Your task to perform on an android device: Where can I buy a nice beach umbrella? Image 0: 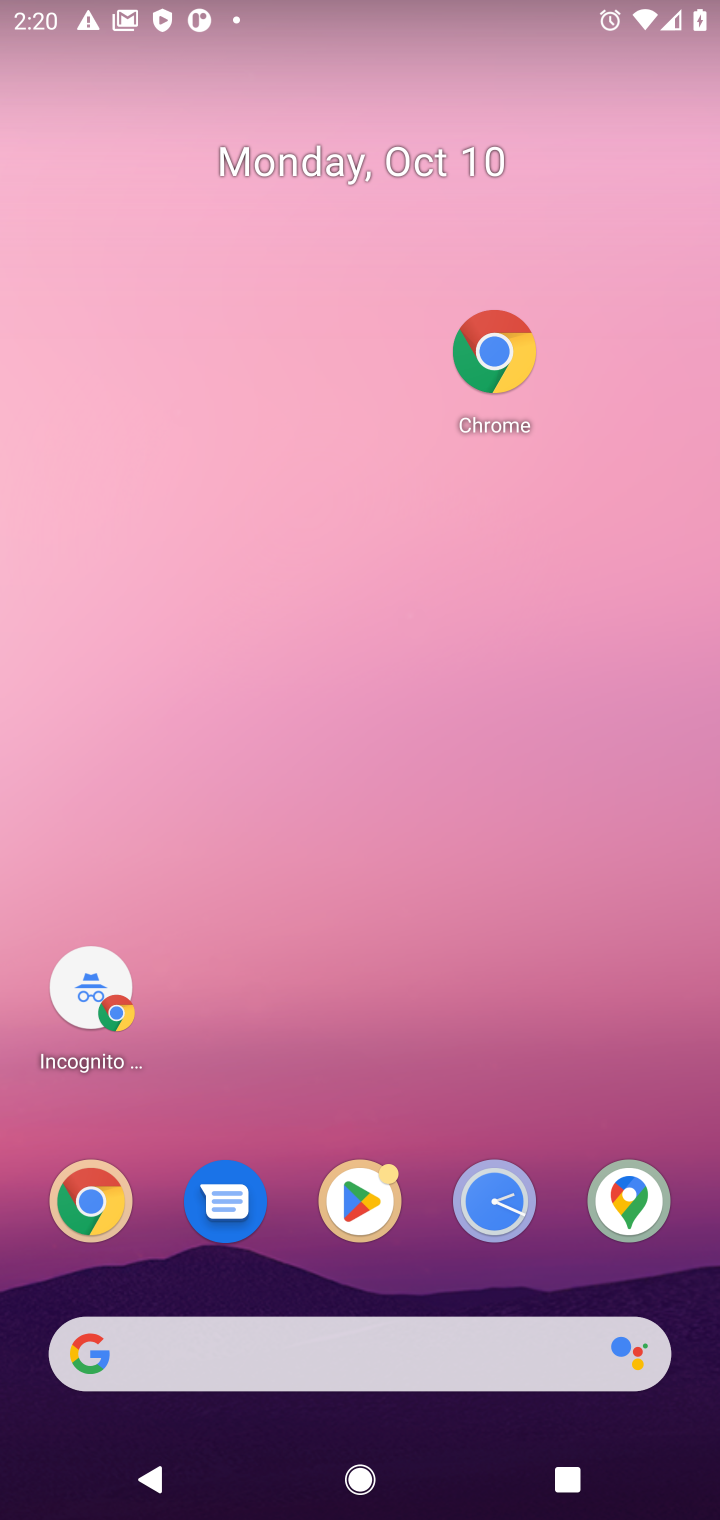
Step 0: click (498, 360)
Your task to perform on an android device: Where can I buy a nice beach umbrella? Image 1: 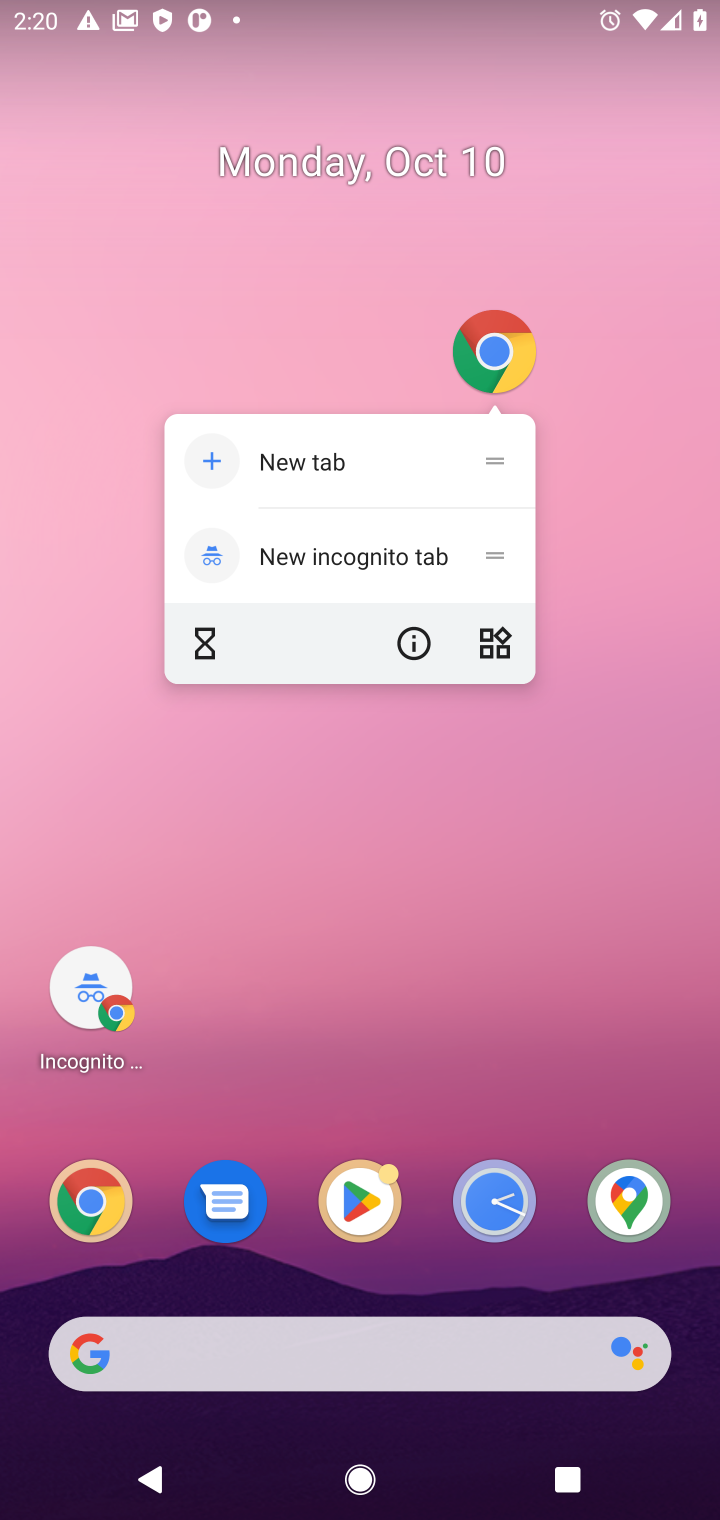
Step 1: click (498, 360)
Your task to perform on an android device: Where can I buy a nice beach umbrella? Image 2: 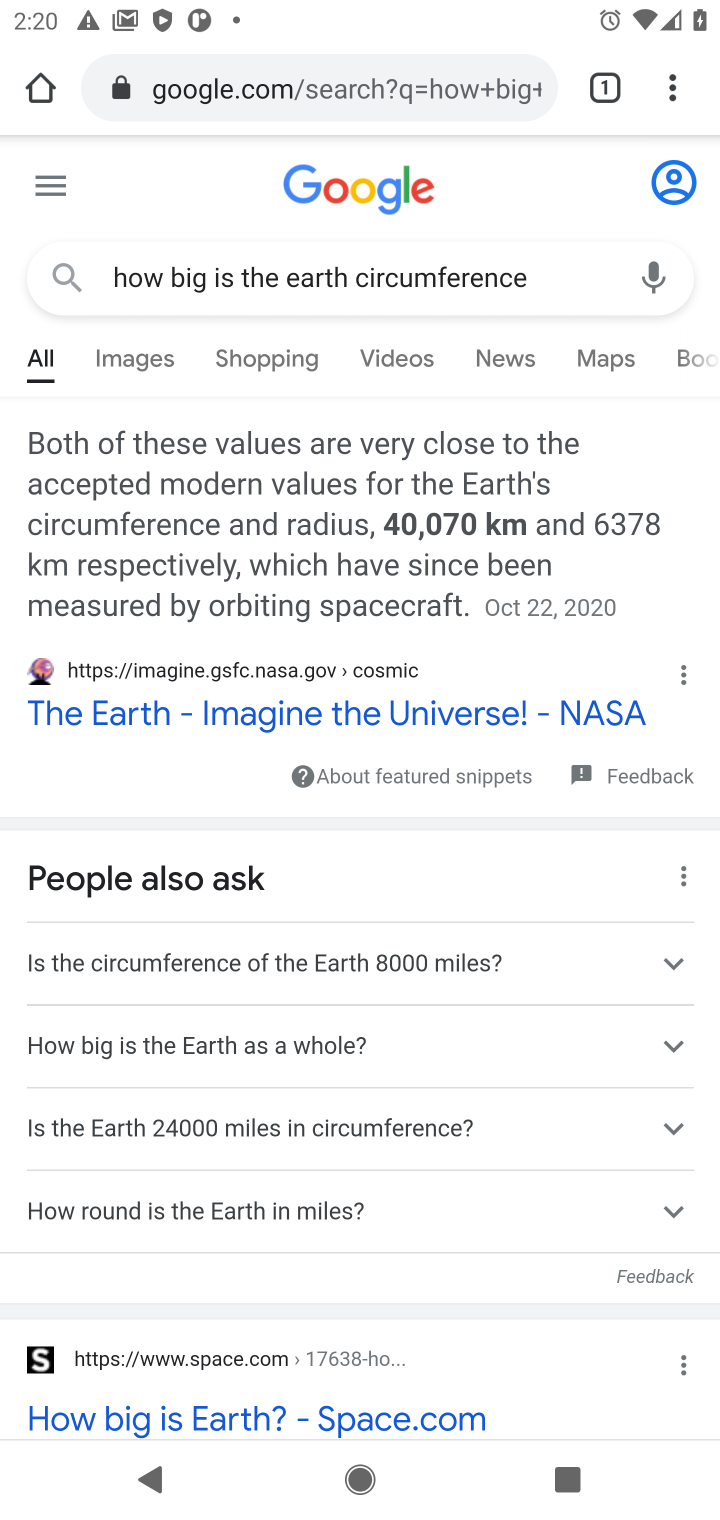
Step 2: click (443, 269)
Your task to perform on an android device: Where can I buy a nice beach umbrella? Image 3: 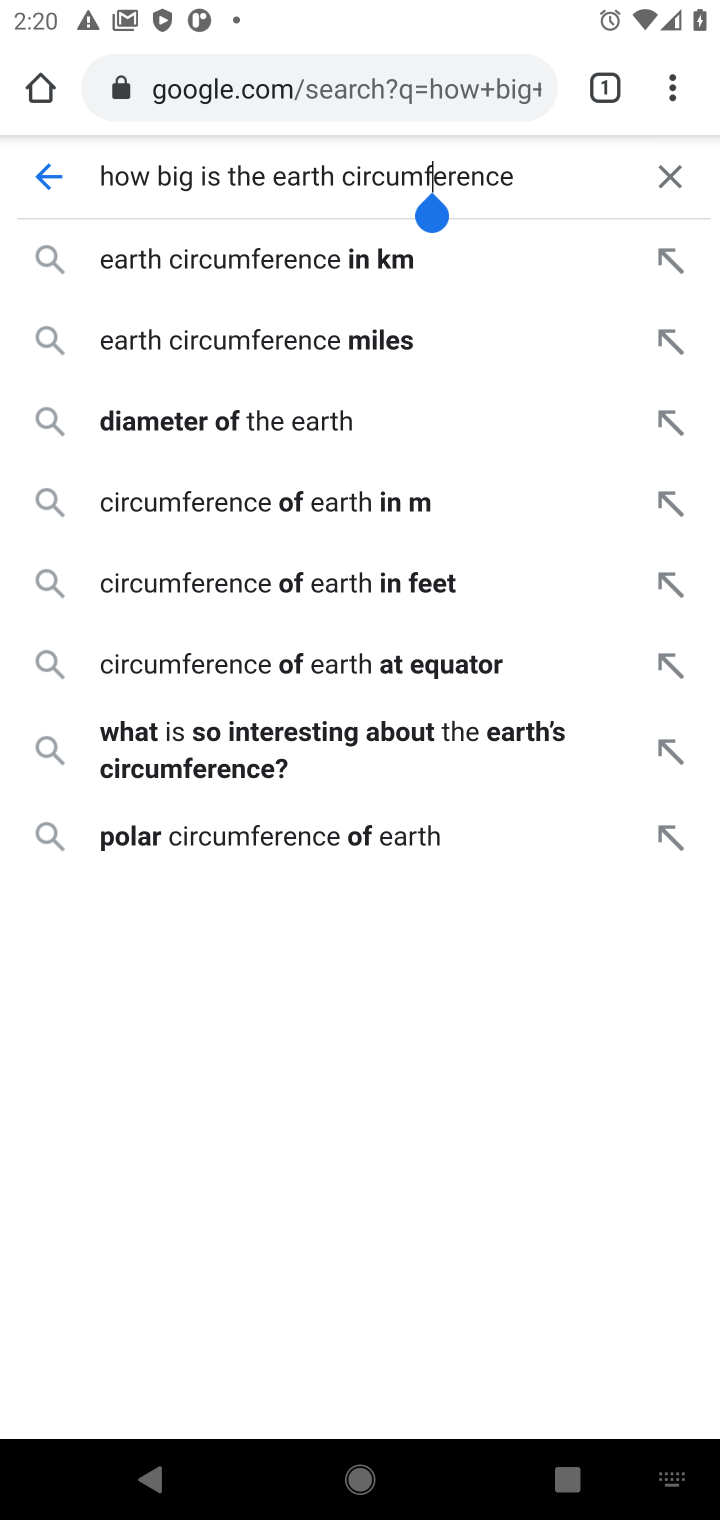
Step 3: click (667, 173)
Your task to perform on an android device: Where can I buy a nice beach umbrella? Image 4: 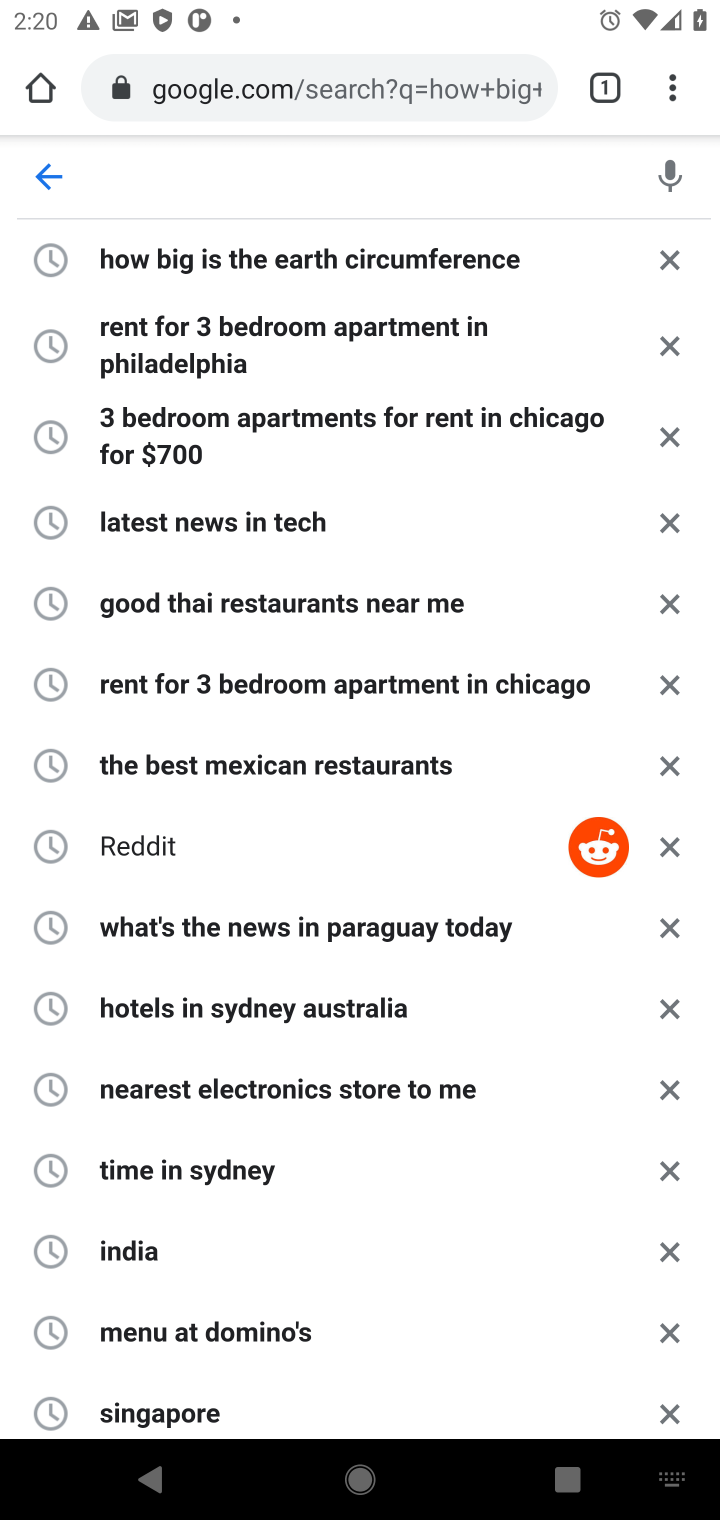
Step 4: type "Where can I buy a nice beach umbrella?"
Your task to perform on an android device: Where can I buy a nice beach umbrella? Image 5: 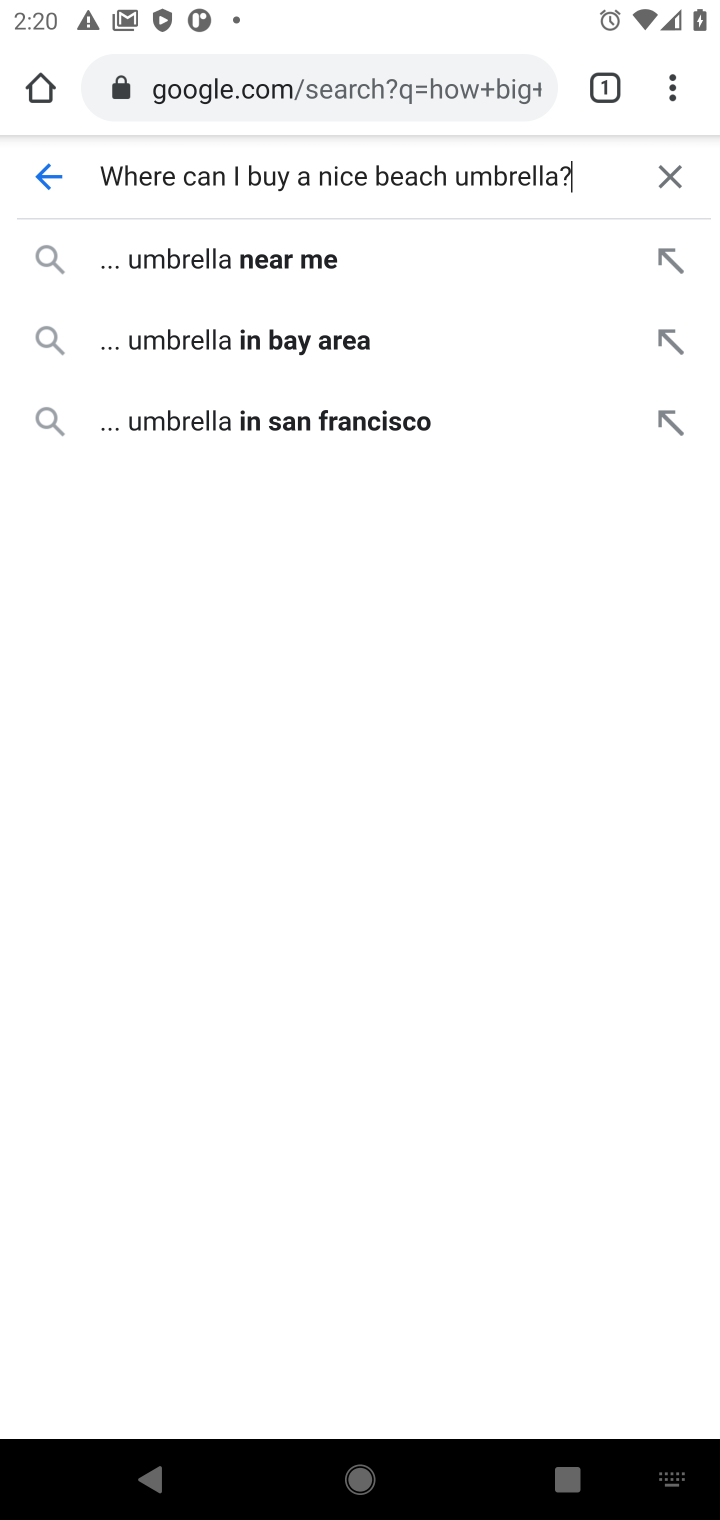
Step 5: click (228, 263)
Your task to perform on an android device: Where can I buy a nice beach umbrella? Image 6: 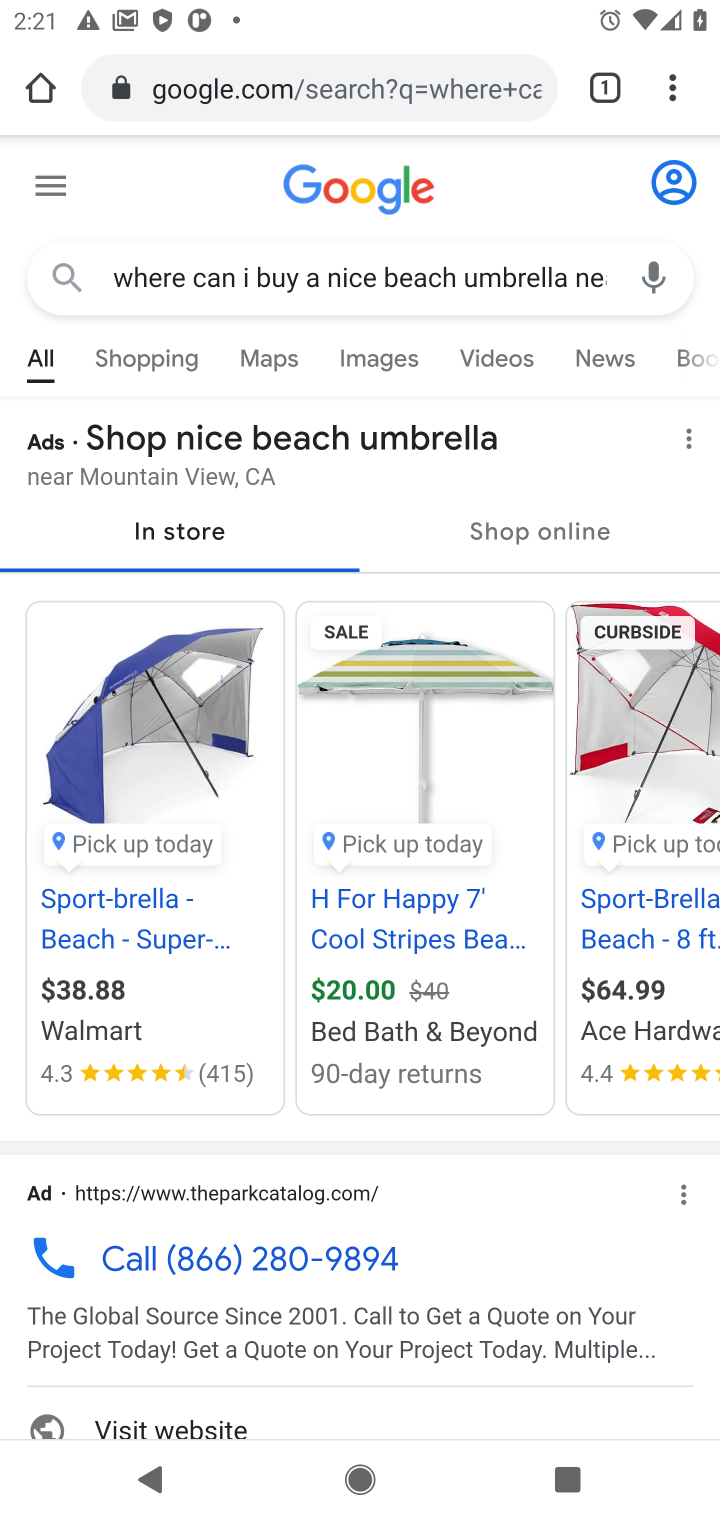
Step 6: drag from (316, 1245) to (292, 676)
Your task to perform on an android device: Where can I buy a nice beach umbrella? Image 7: 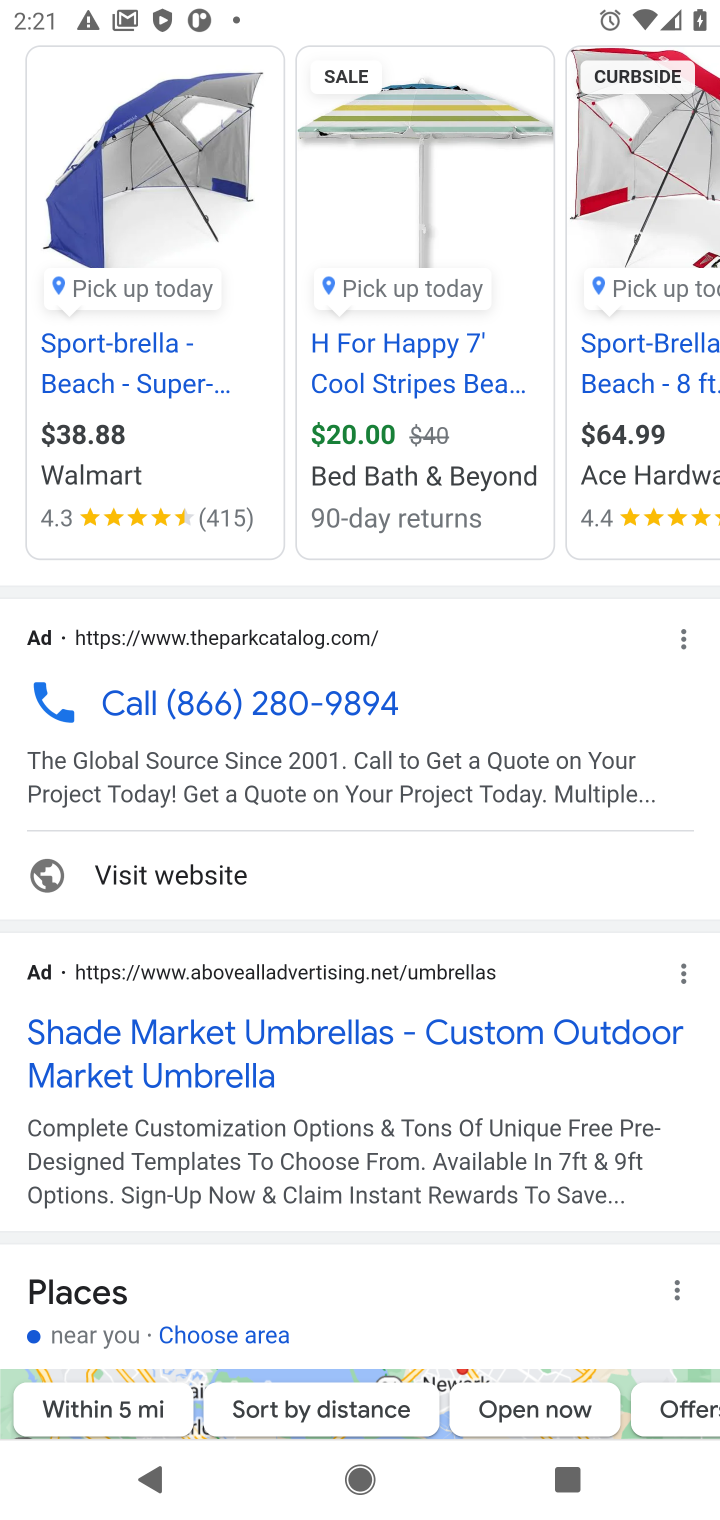
Step 7: drag from (233, 1125) to (225, 470)
Your task to perform on an android device: Where can I buy a nice beach umbrella? Image 8: 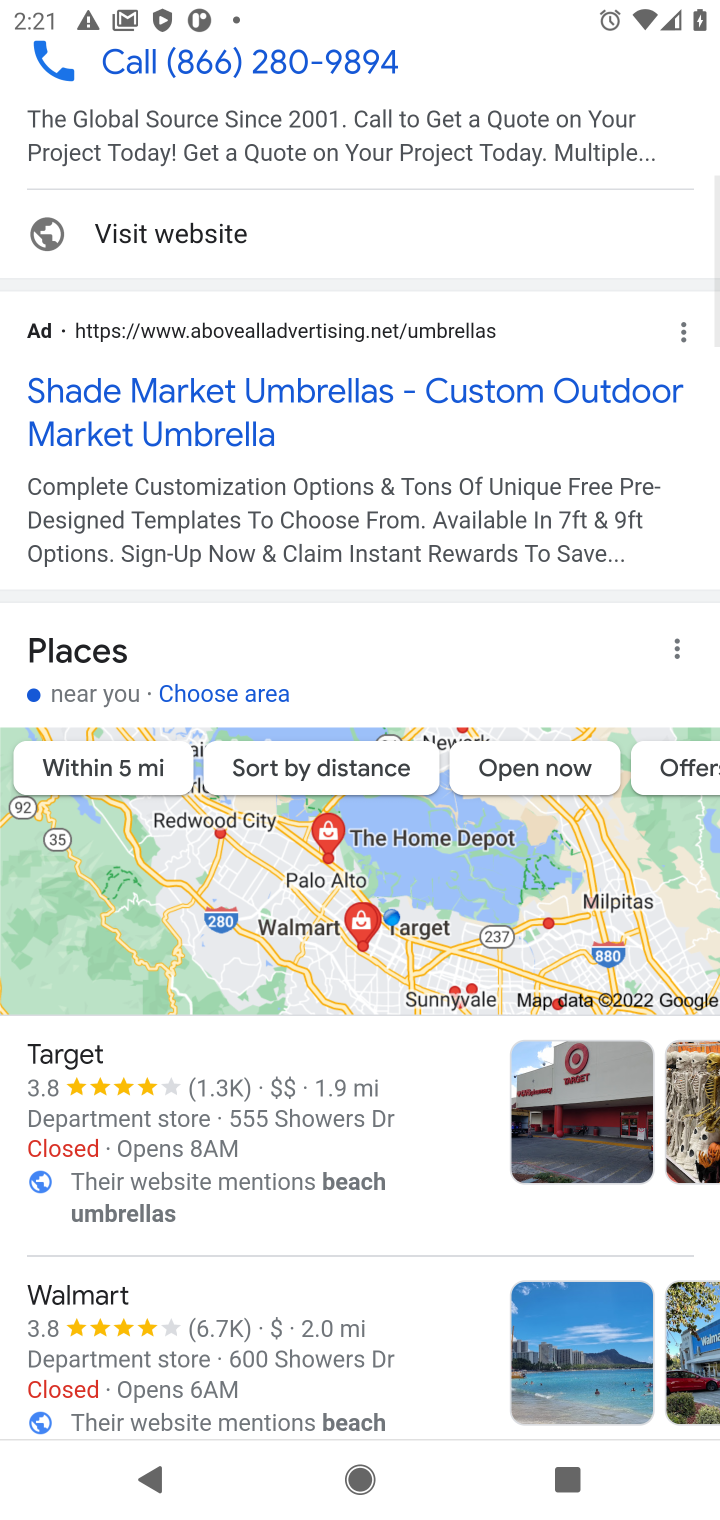
Step 8: drag from (271, 1153) to (245, 570)
Your task to perform on an android device: Where can I buy a nice beach umbrella? Image 9: 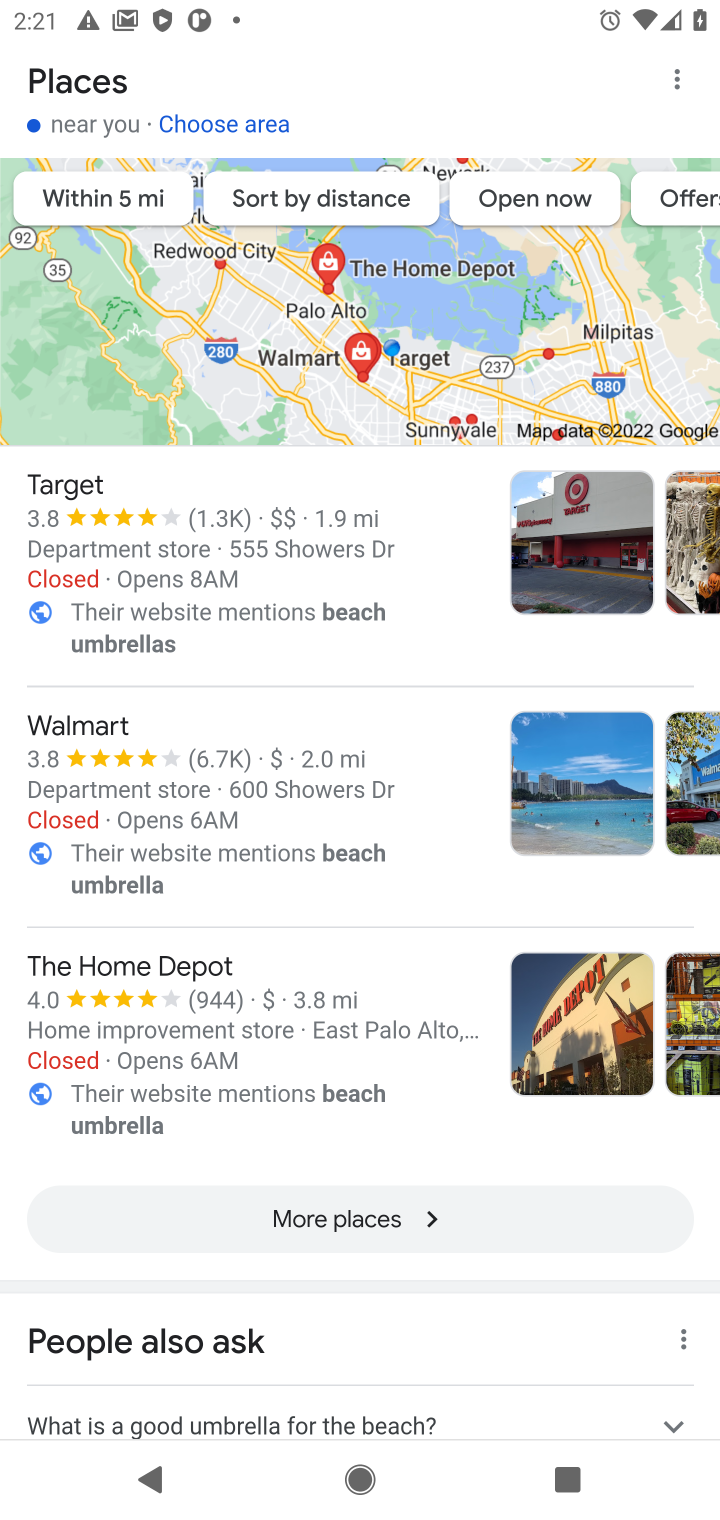
Step 9: click (161, 780)
Your task to perform on an android device: Where can I buy a nice beach umbrella? Image 10: 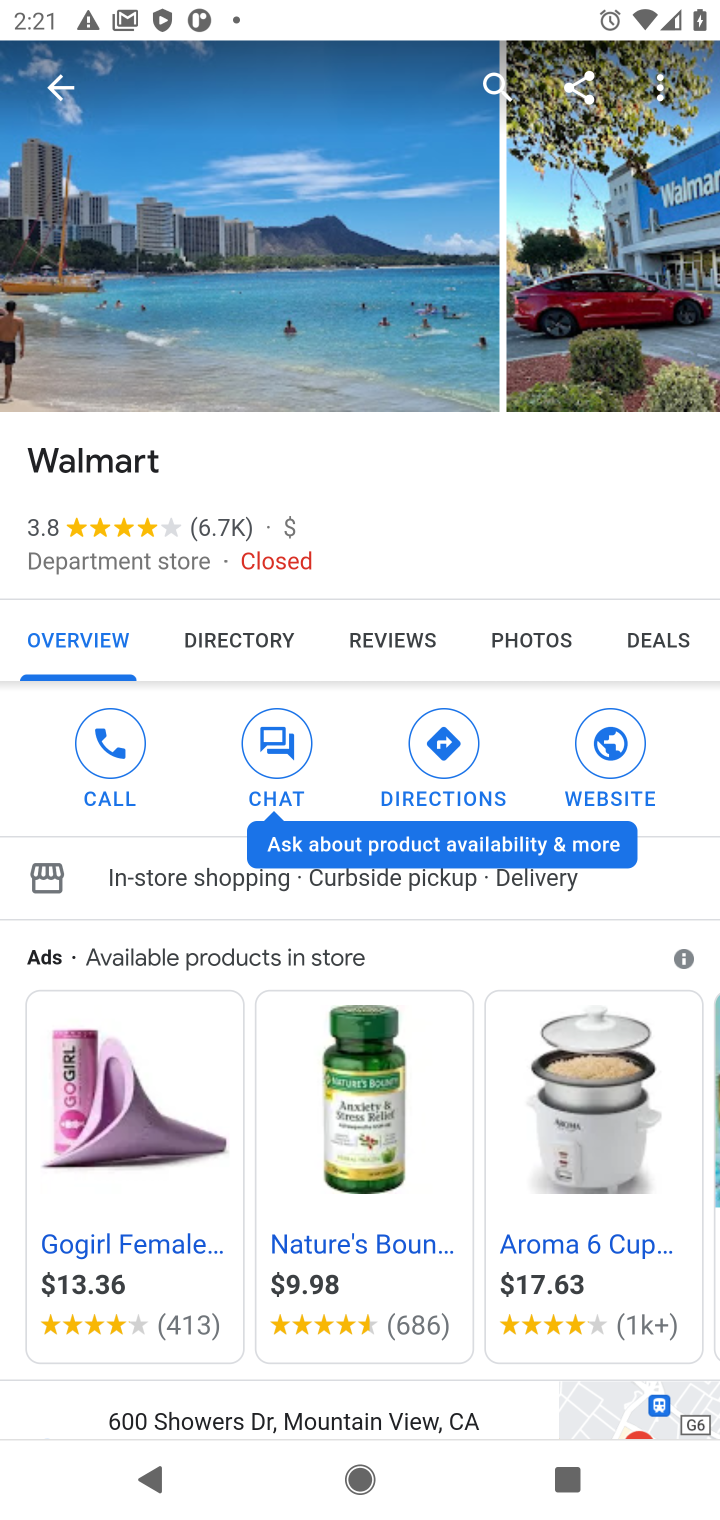
Step 10: drag from (444, 742) to (403, 378)
Your task to perform on an android device: Where can I buy a nice beach umbrella? Image 11: 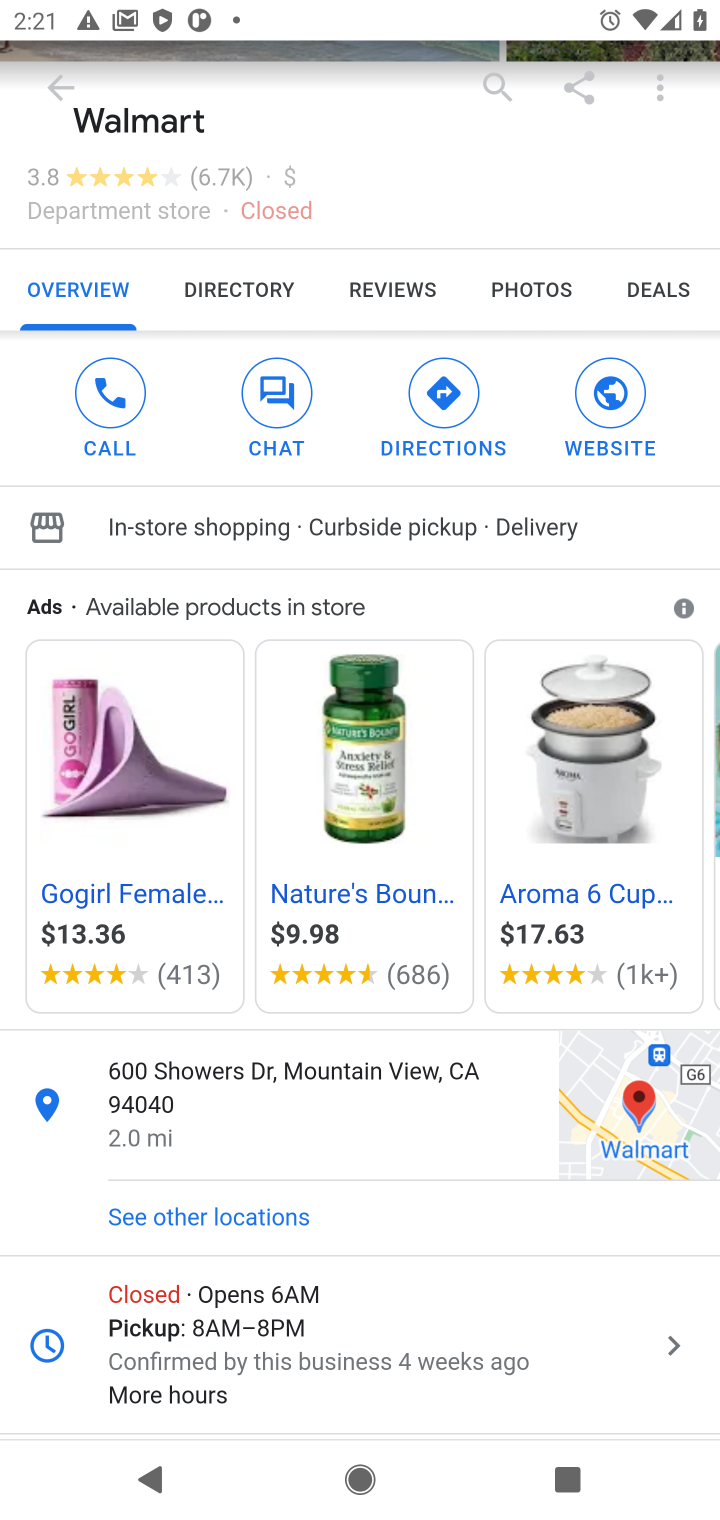
Step 11: drag from (382, 955) to (360, 427)
Your task to perform on an android device: Where can I buy a nice beach umbrella? Image 12: 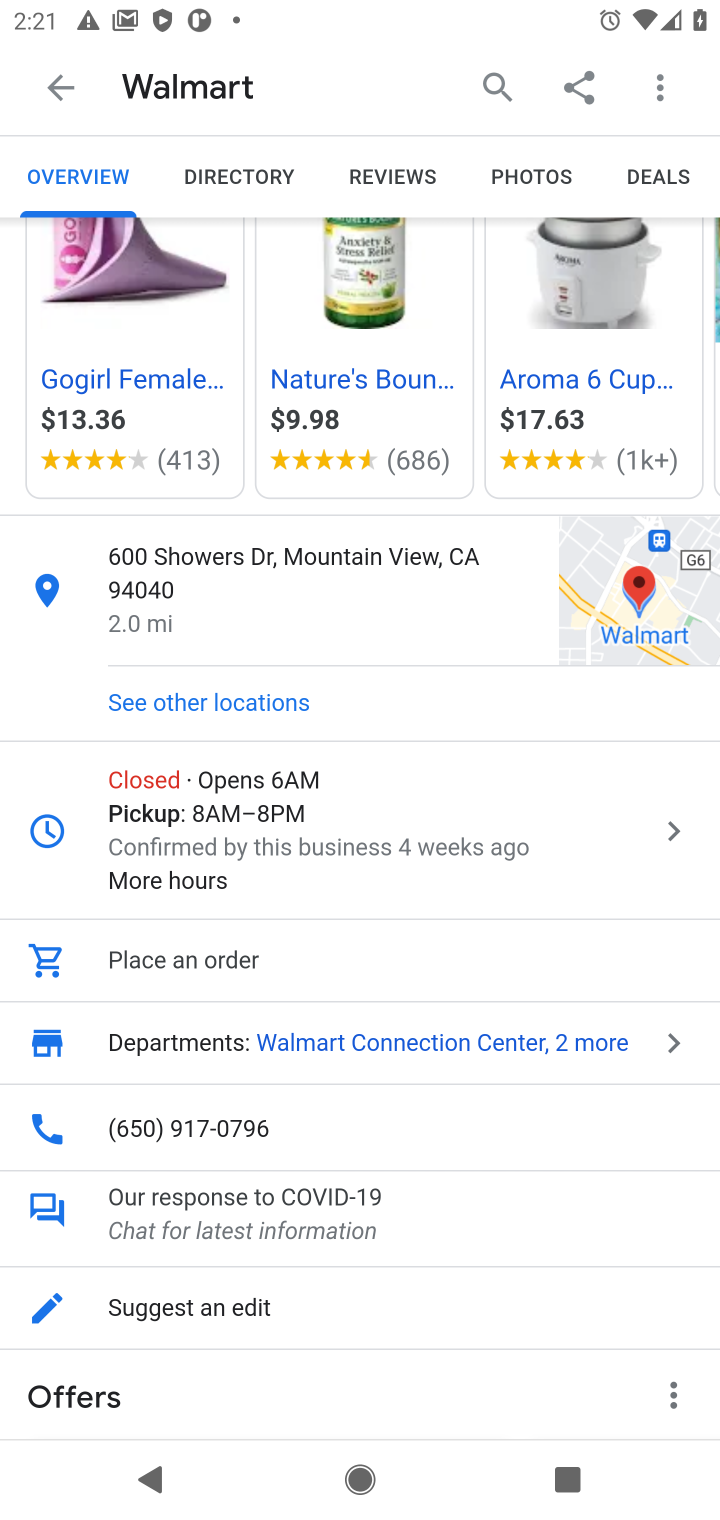
Step 12: drag from (337, 1067) to (337, 464)
Your task to perform on an android device: Where can I buy a nice beach umbrella? Image 13: 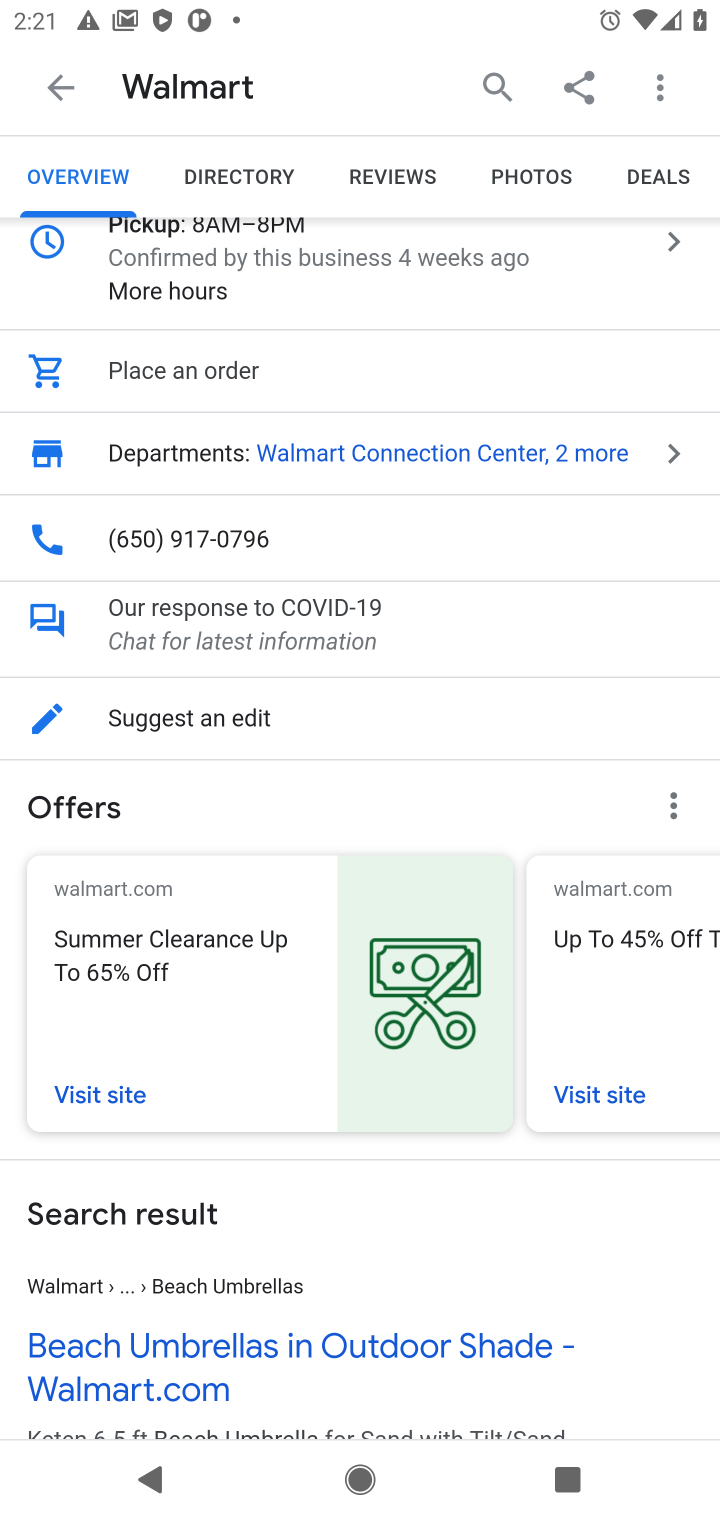
Step 13: drag from (230, 1096) to (269, 501)
Your task to perform on an android device: Where can I buy a nice beach umbrella? Image 14: 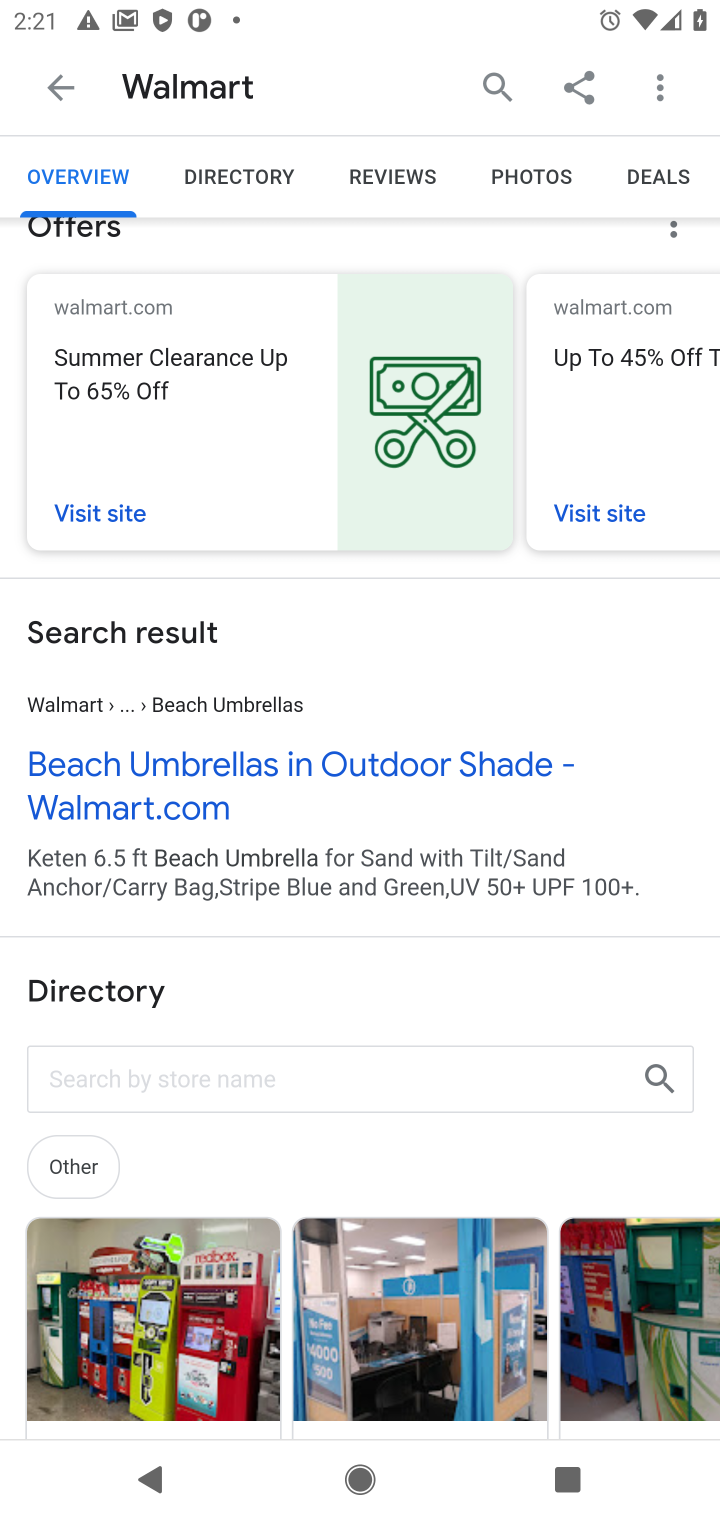
Step 14: click (178, 797)
Your task to perform on an android device: Where can I buy a nice beach umbrella? Image 15: 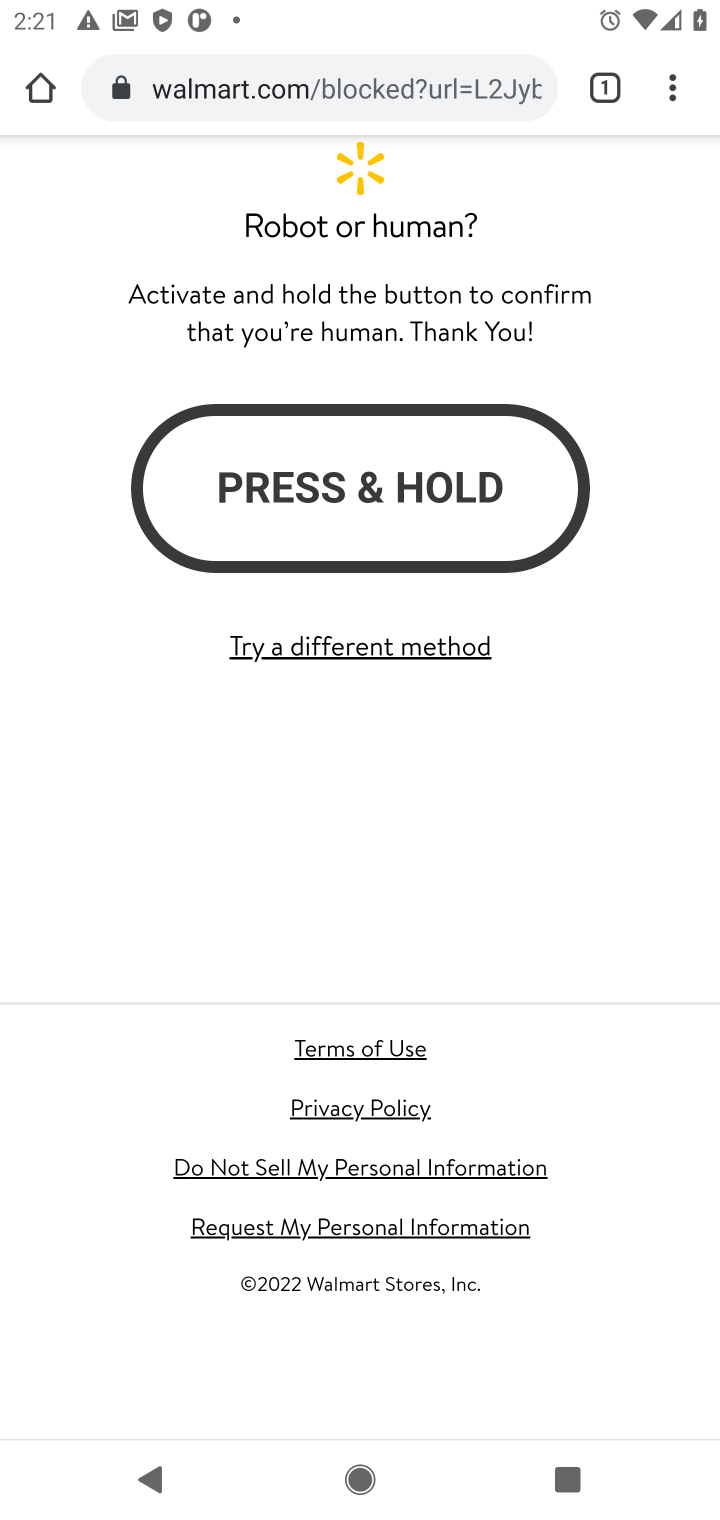
Step 15: drag from (563, 1028) to (563, 594)
Your task to perform on an android device: Where can I buy a nice beach umbrella? Image 16: 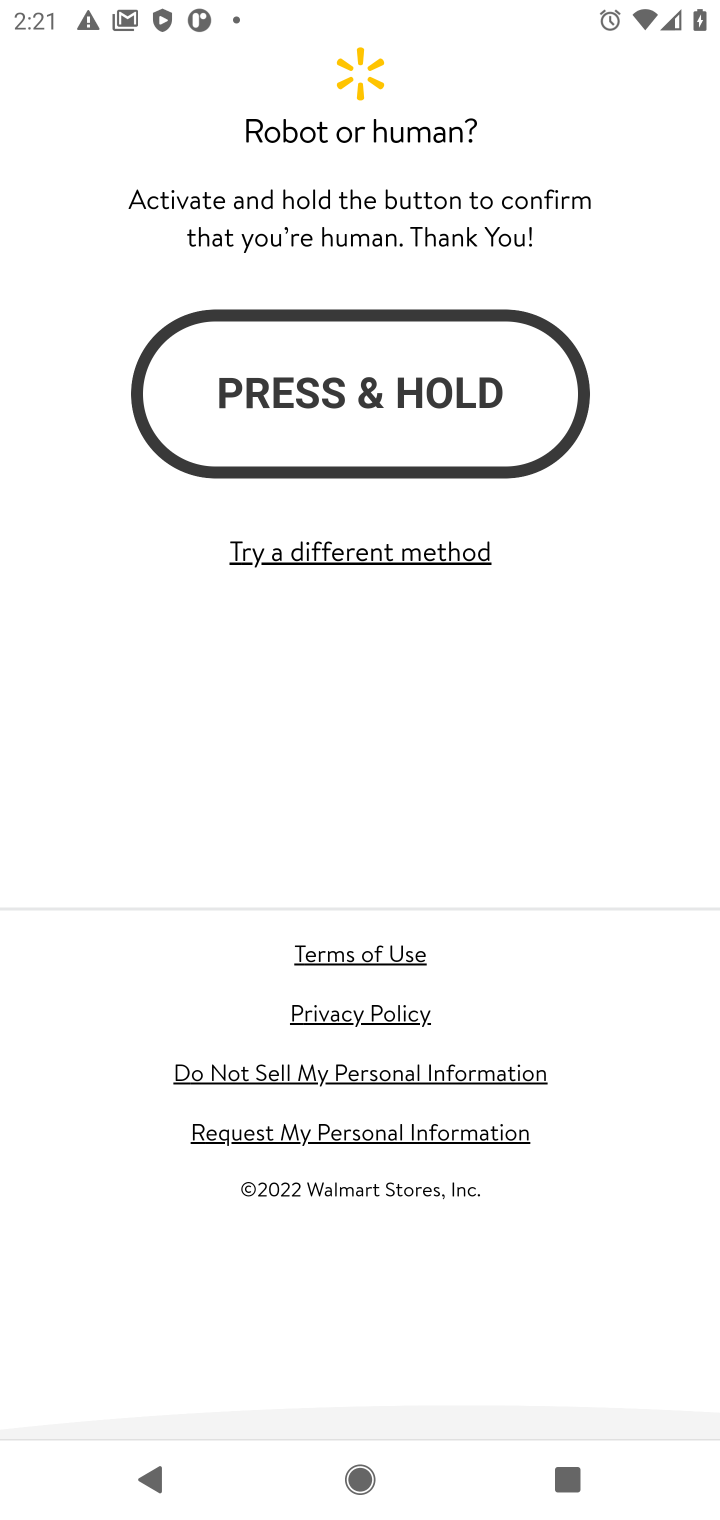
Step 16: drag from (527, 670) to (538, 1350)
Your task to perform on an android device: Where can I buy a nice beach umbrella? Image 17: 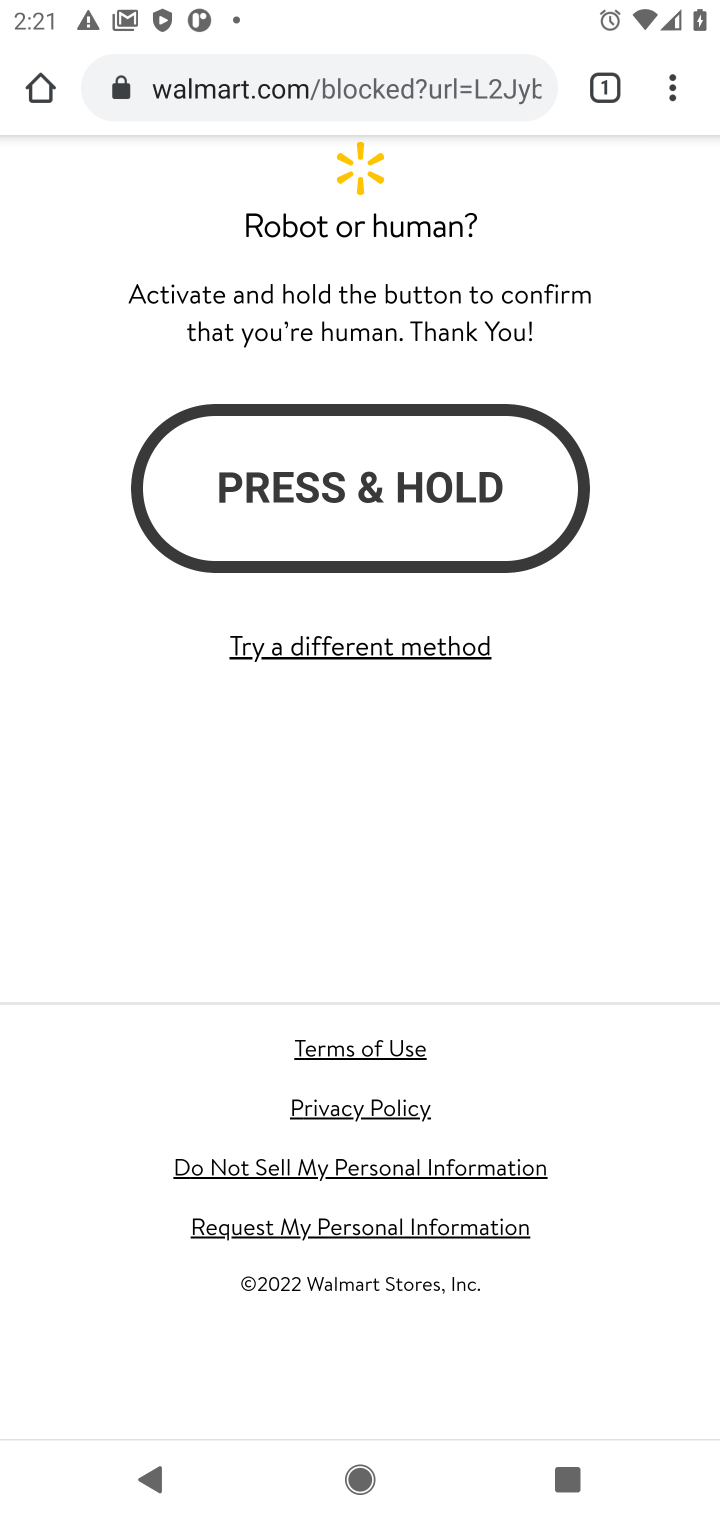
Step 17: click (345, 647)
Your task to perform on an android device: Where can I buy a nice beach umbrella? Image 18: 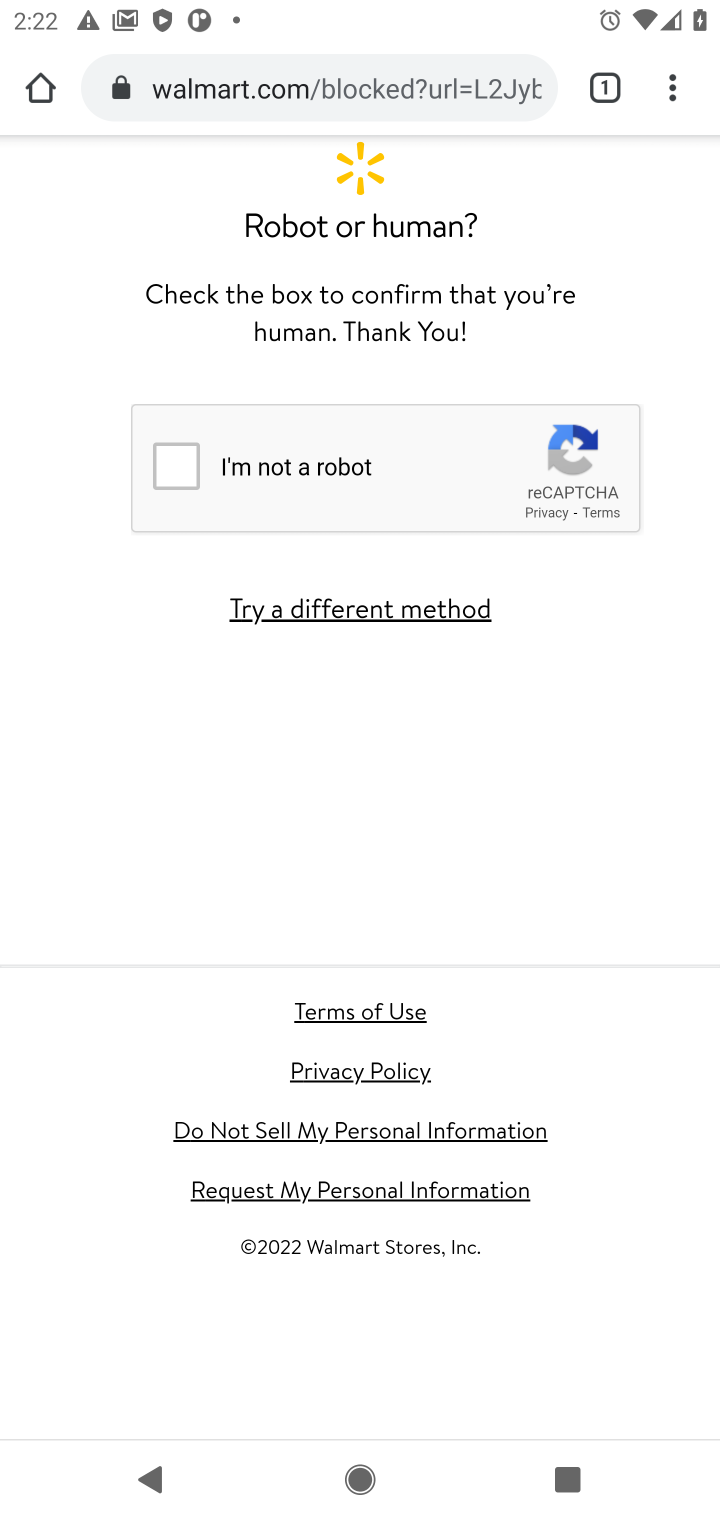
Step 18: click (174, 456)
Your task to perform on an android device: Where can I buy a nice beach umbrella? Image 19: 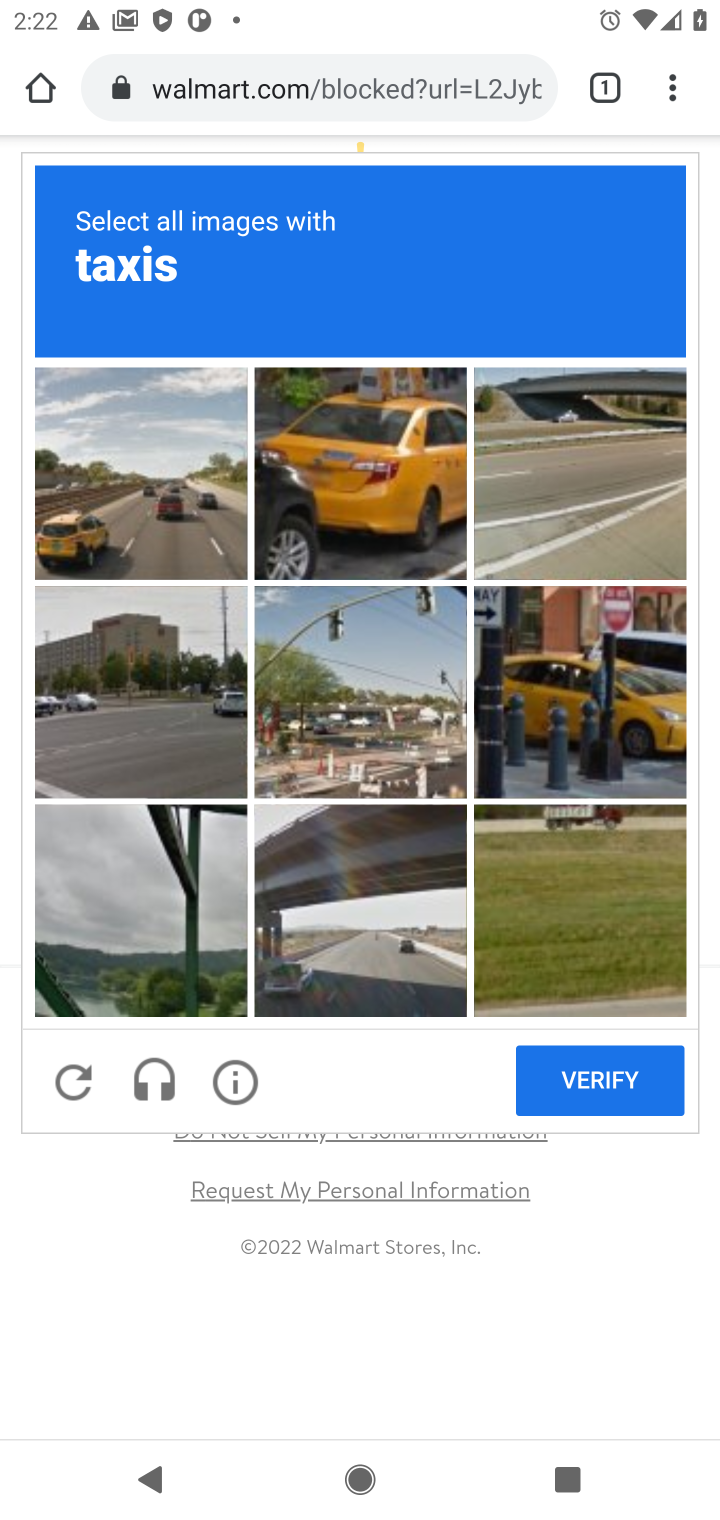
Step 19: drag from (141, 480) to (374, 481)
Your task to perform on an android device: Where can I buy a nice beach umbrella? Image 20: 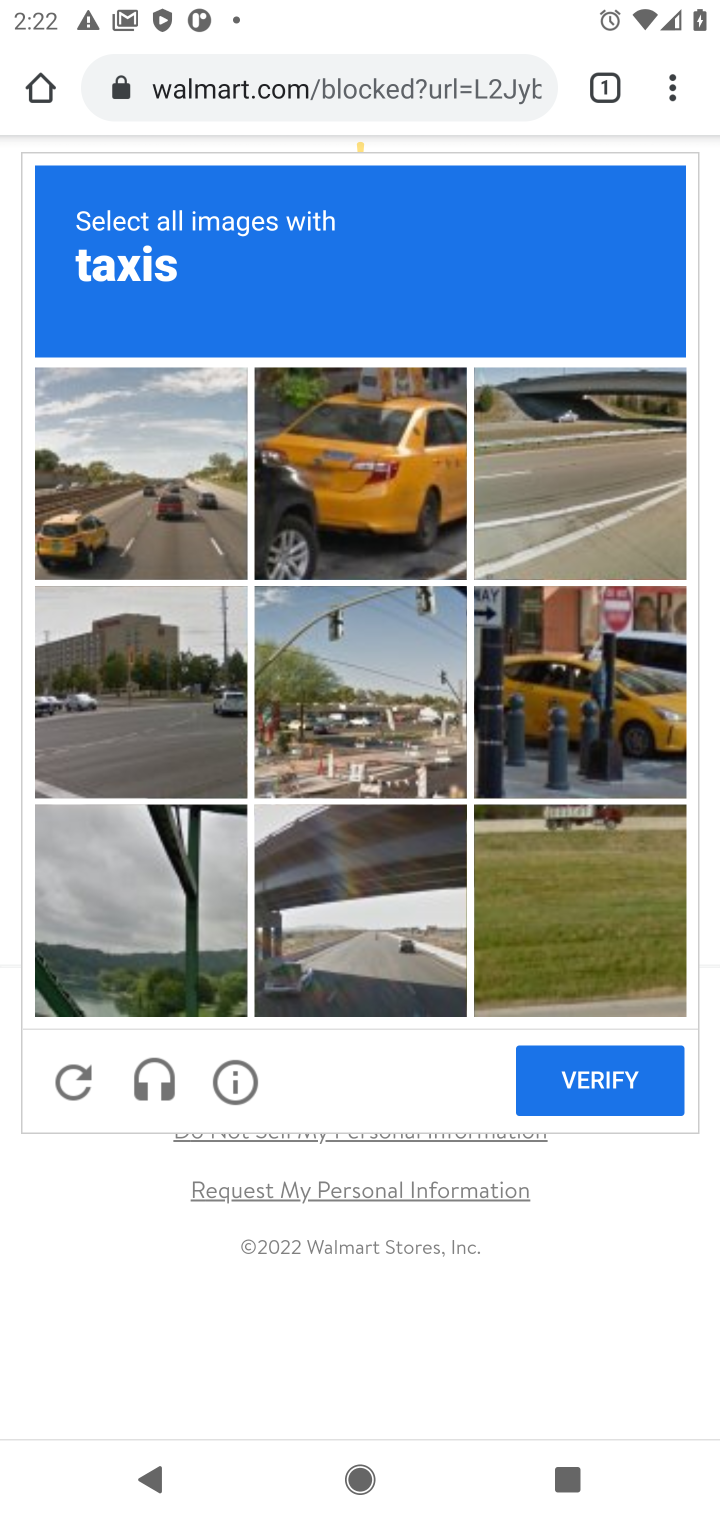
Step 20: drag from (543, 704) to (116, 763)
Your task to perform on an android device: Where can I buy a nice beach umbrella? Image 21: 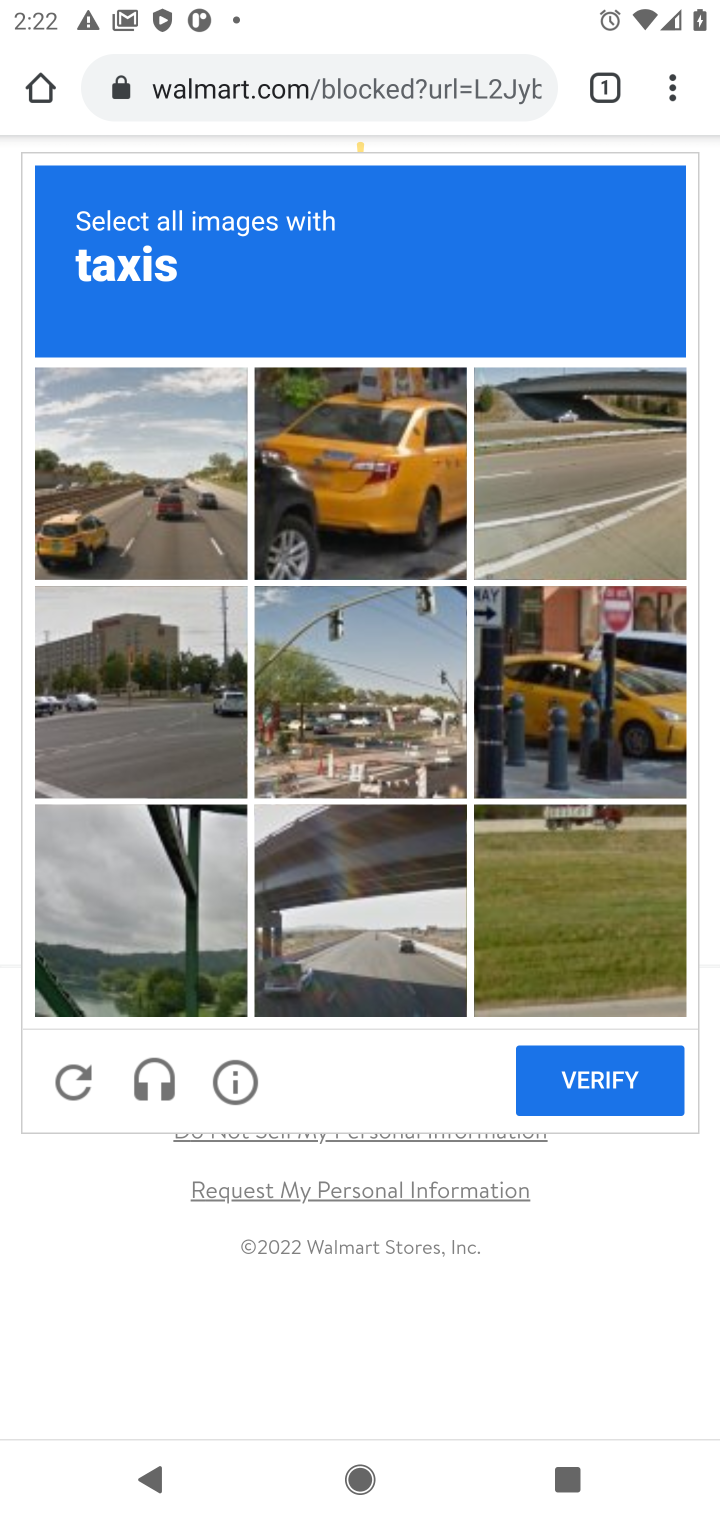
Step 21: click (353, 988)
Your task to perform on an android device: Where can I buy a nice beach umbrella? Image 22: 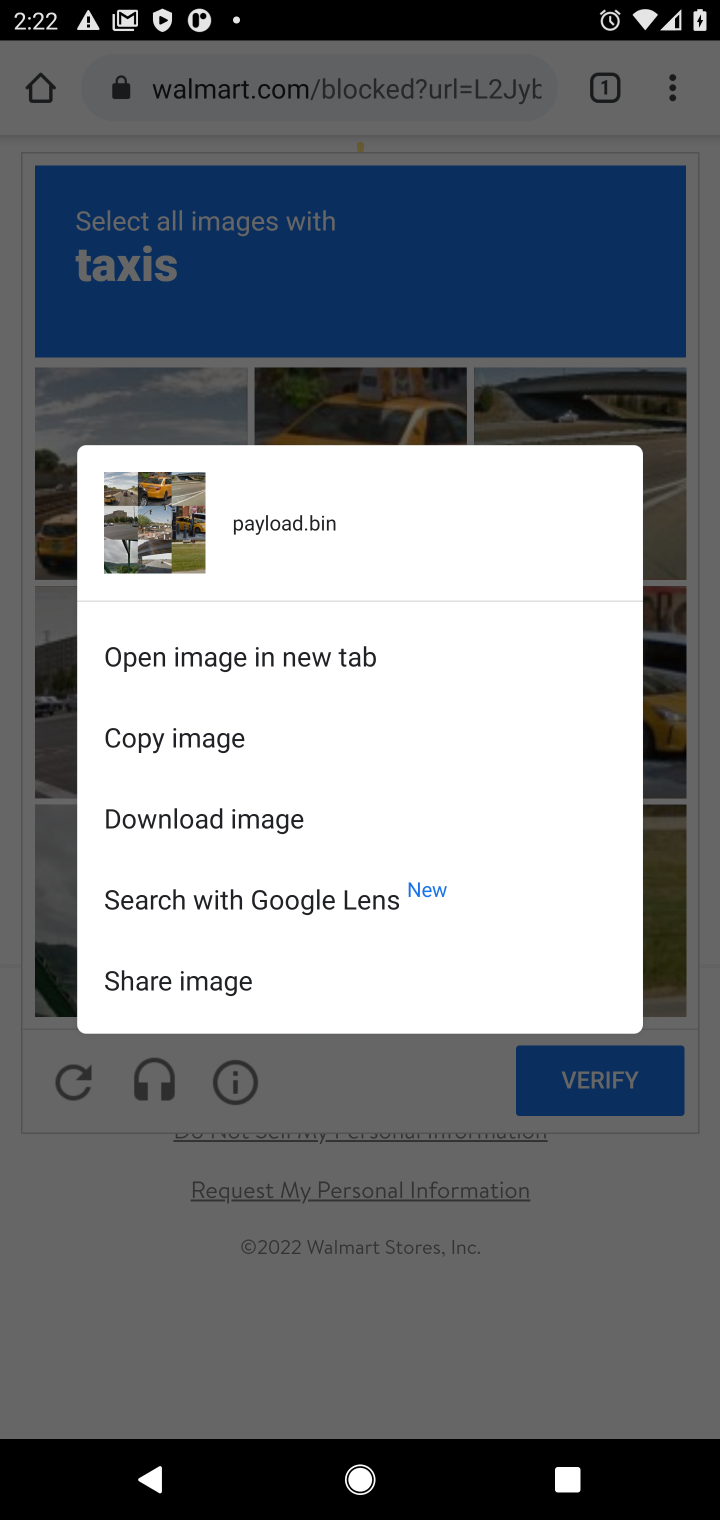
Step 22: click (461, 1077)
Your task to perform on an android device: Where can I buy a nice beach umbrella? Image 23: 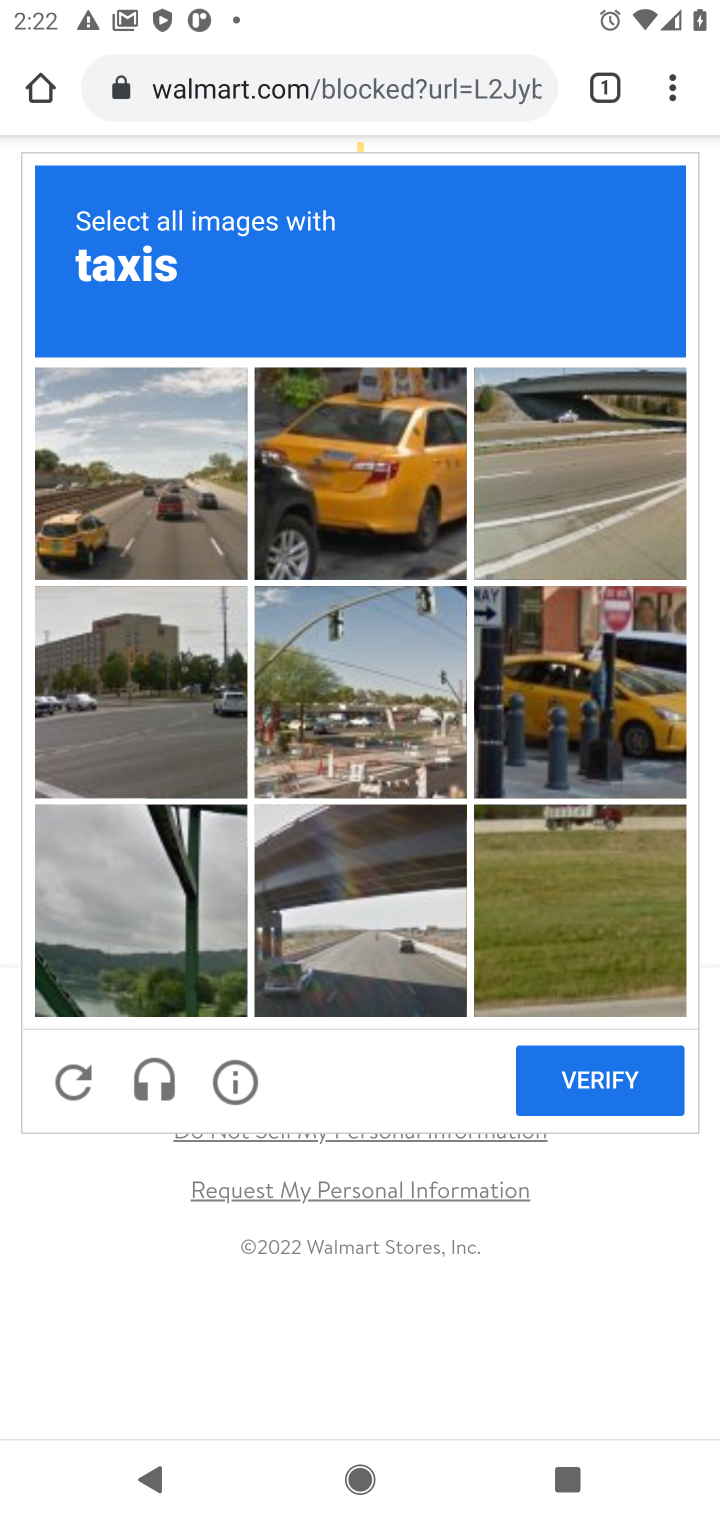
Step 23: click (156, 518)
Your task to perform on an android device: Where can I buy a nice beach umbrella? Image 24: 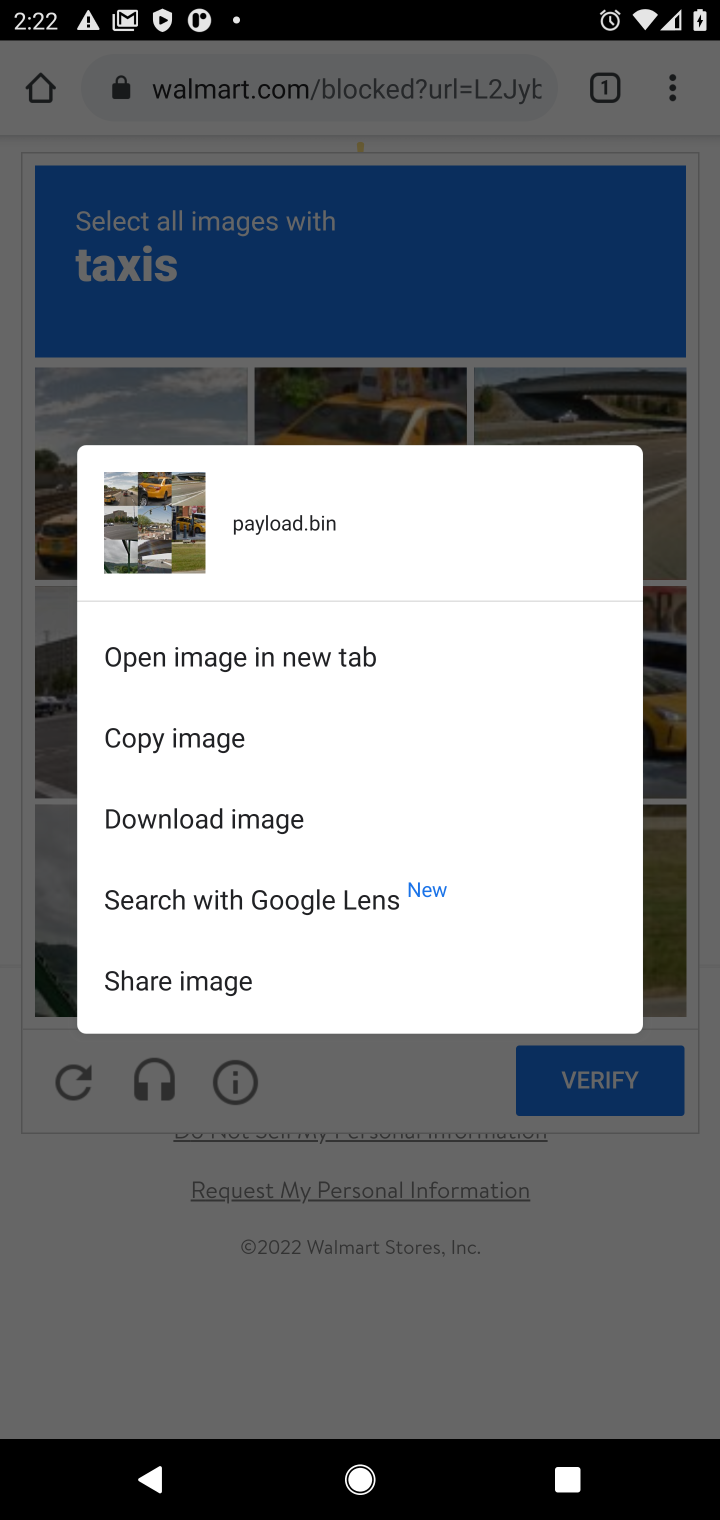
Step 24: click (197, 416)
Your task to perform on an android device: Where can I buy a nice beach umbrella? Image 25: 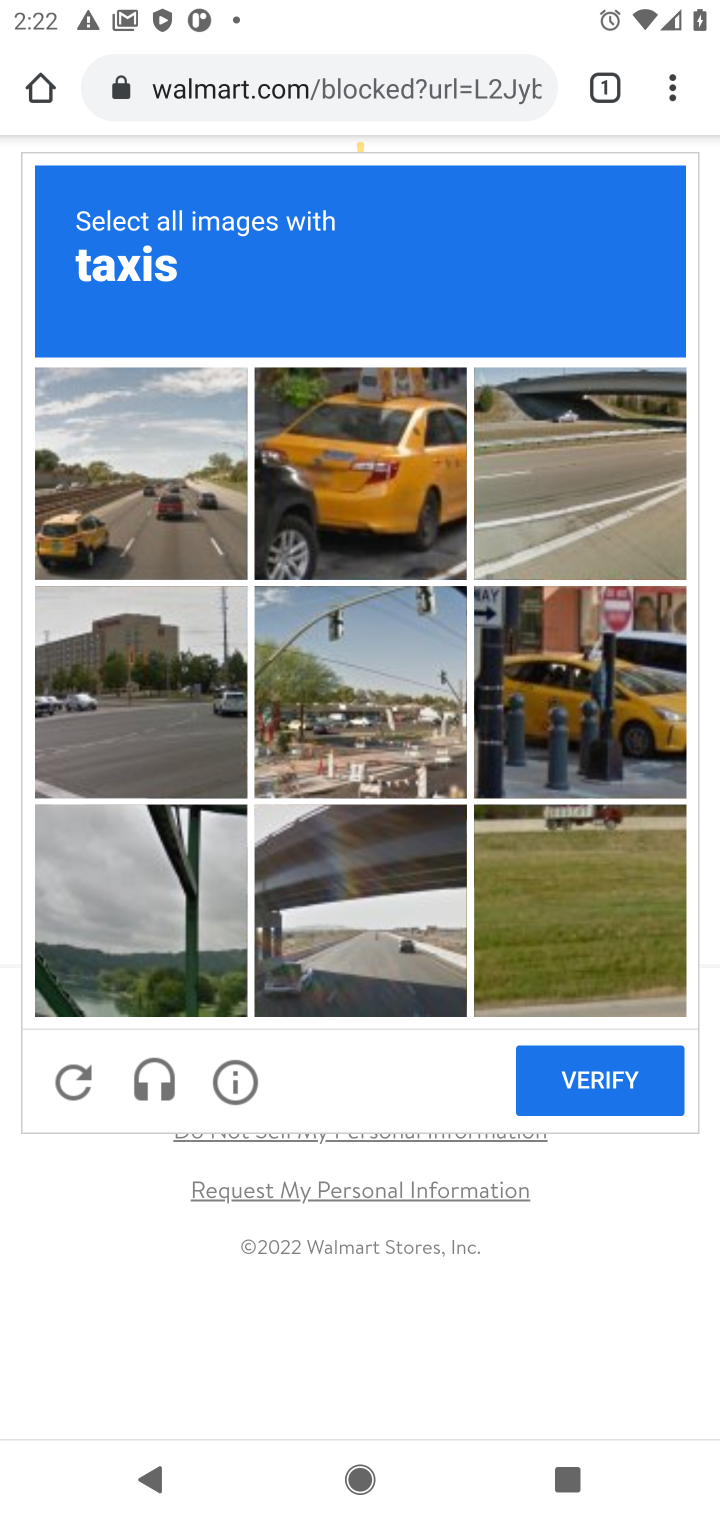
Step 25: task complete